Your task to perform on an android device: Do I have any events this weekend? Image 0: 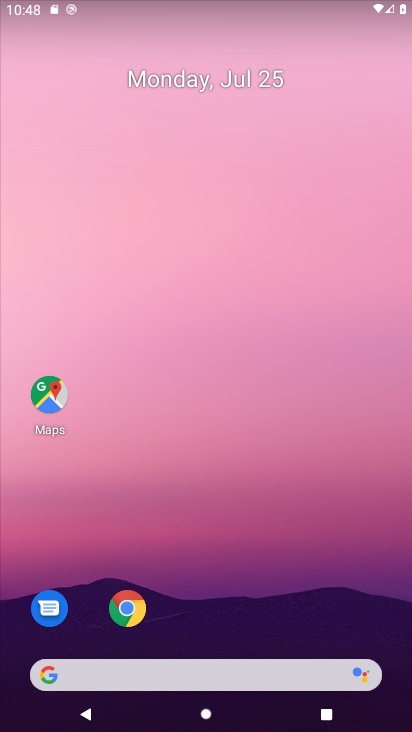
Step 0: drag from (268, 669) to (263, 192)
Your task to perform on an android device: Do I have any events this weekend? Image 1: 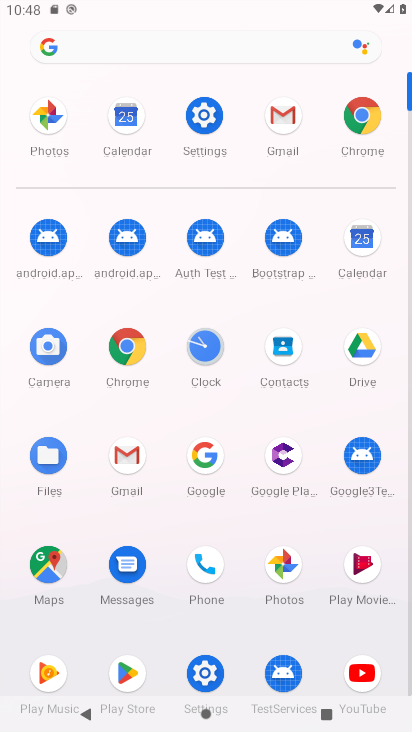
Step 1: click (344, 221)
Your task to perform on an android device: Do I have any events this weekend? Image 2: 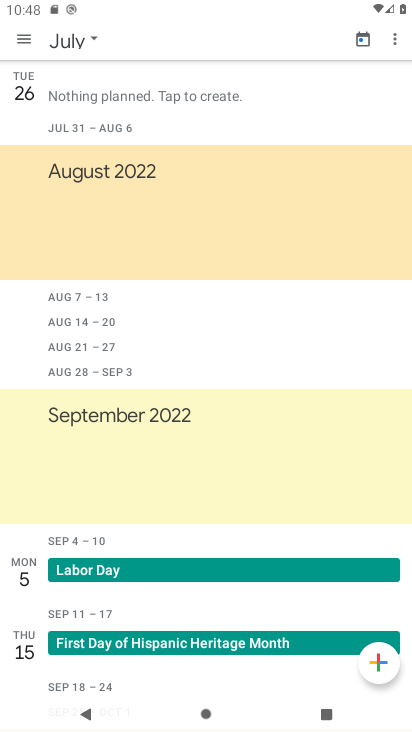
Step 2: click (26, 45)
Your task to perform on an android device: Do I have any events this weekend? Image 3: 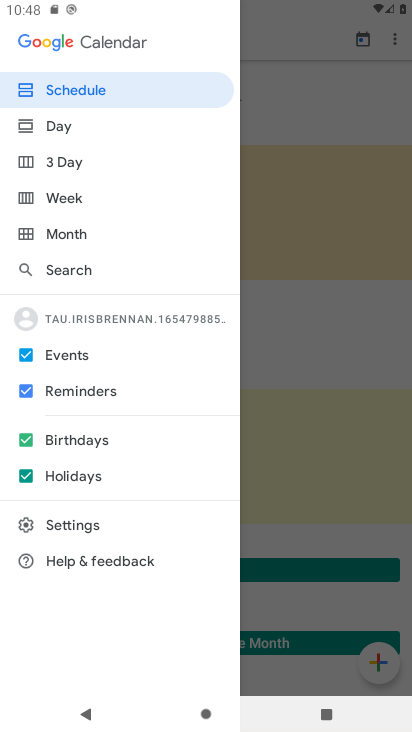
Step 3: click (73, 195)
Your task to perform on an android device: Do I have any events this weekend? Image 4: 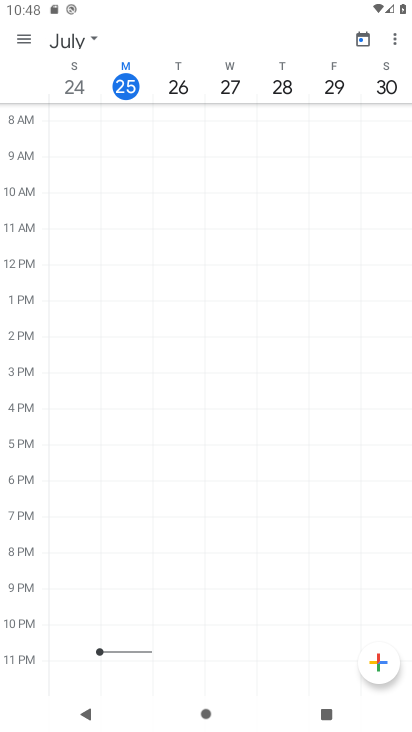
Step 4: task complete